Your task to perform on an android device: Search for vegetarian restaurants on Maps Image 0: 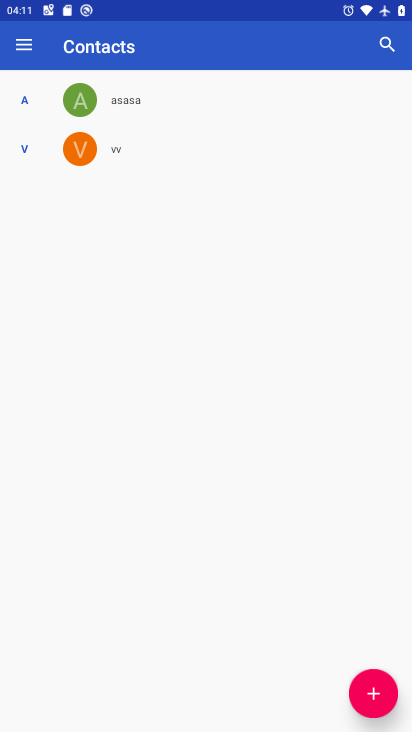
Step 0: press home button
Your task to perform on an android device: Search for vegetarian restaurants on Maps Image 1: 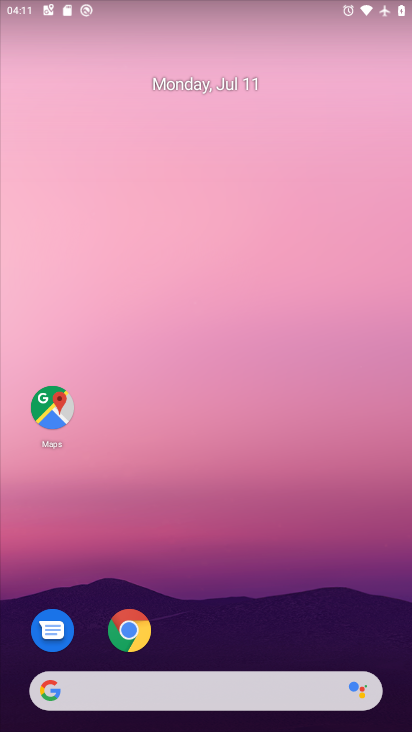
Step 1: drag from (256, 621) to (269, 114)
Your task to perform on an android device: Search for vegetarian restaurants on Maps Image 2: 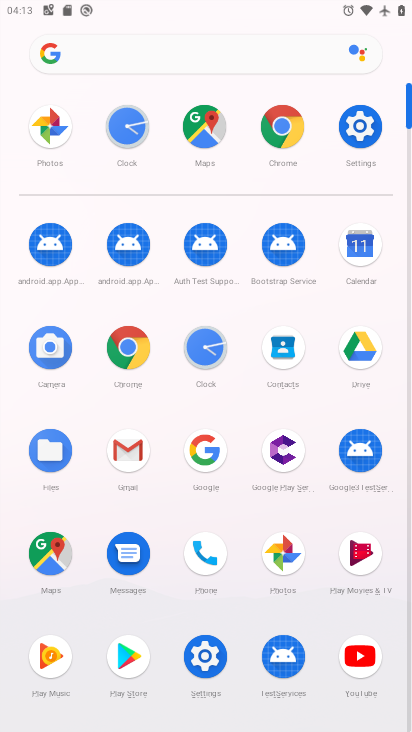
Step 2: click (191, 136)
Your task to perform on an android device: Search for vegetarian restaurants on Maps Image 3: 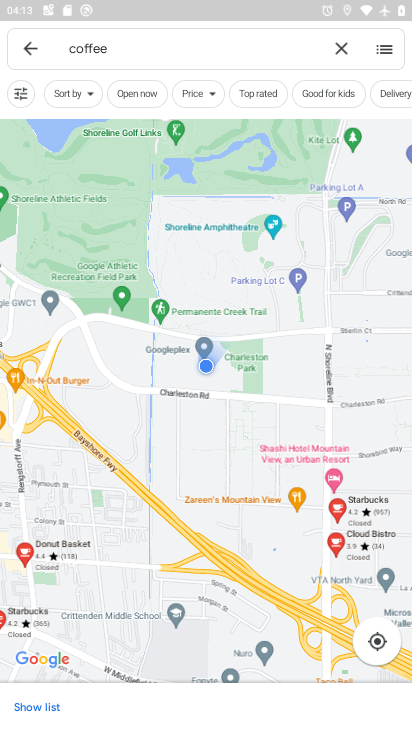
Step 3: click (335, 60)
Your task to perform on an android device: Search for vegetarian restaurants on Maps Image 4: 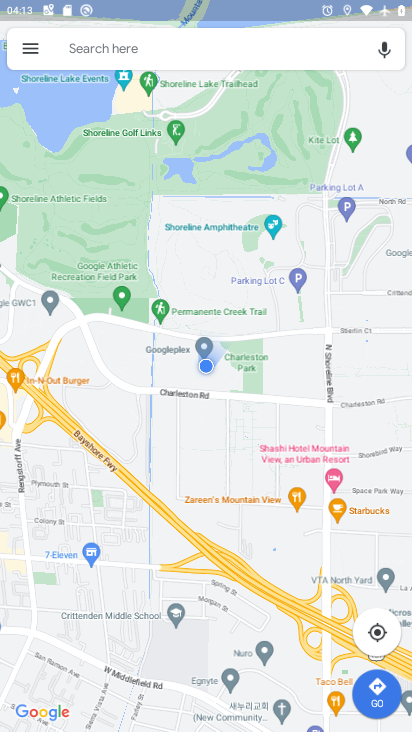
Step 4: click (231, 70)
Your task to perform on an android device: Search for vegetarian restaurants on Maps Image 5: 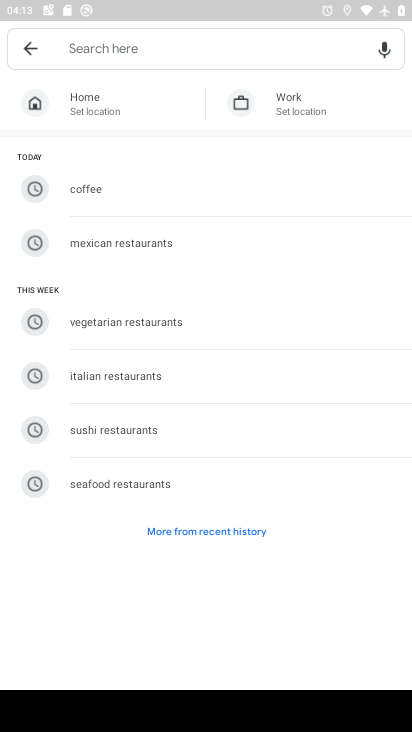
Step 5: click (155, 320)
Your task to perform on an android device: Search for vegetarian restaurants on Maps Image 6: 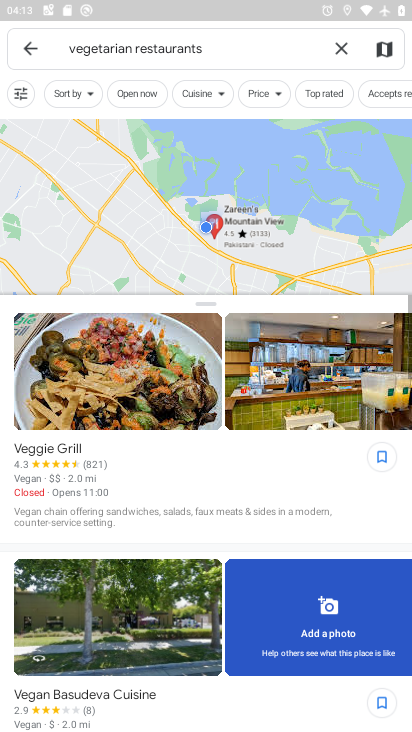
Step 6: task complete